Your task to perform on an android device: Search for a new grill on Home Depot Image 0: 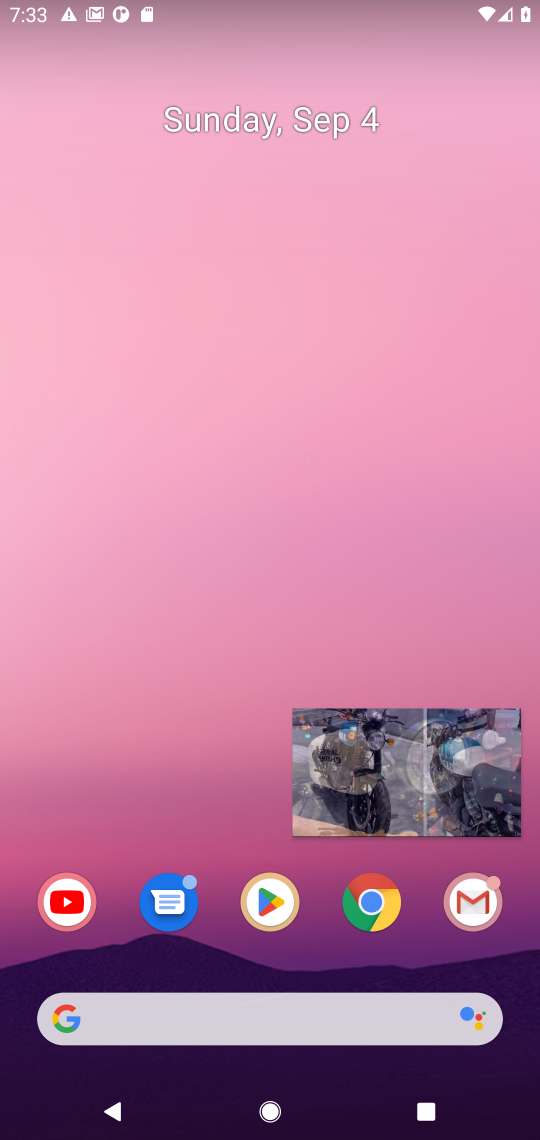
Step 0: click (364, 816)
Your task to perform on an android device: Search for a new grill on Home Depot Image 1: 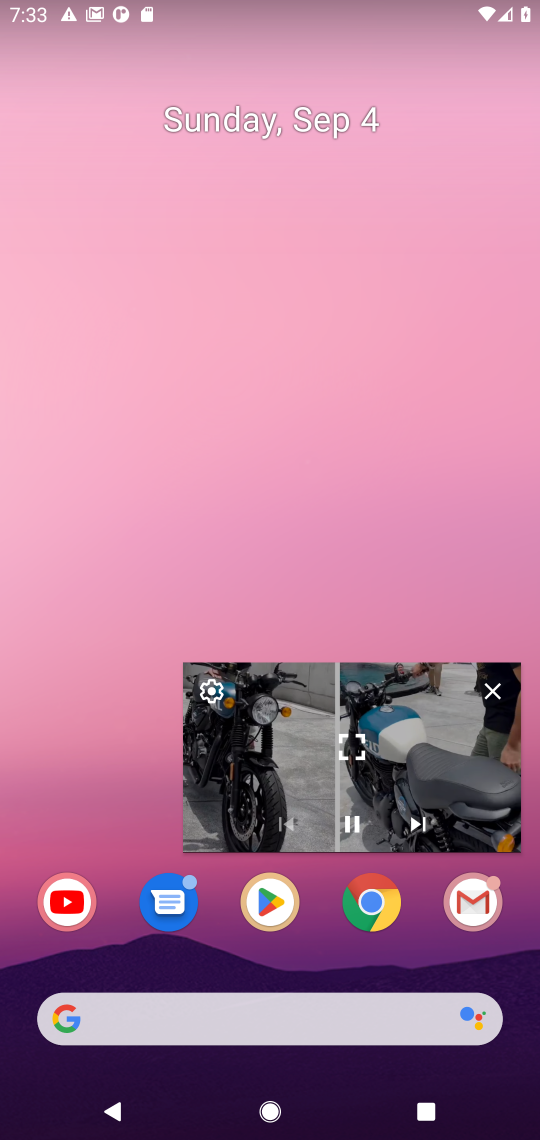
Step 1: click (502, 691)
Your task to perform on an android device: Search for a new grill on Home Depot Image 2: 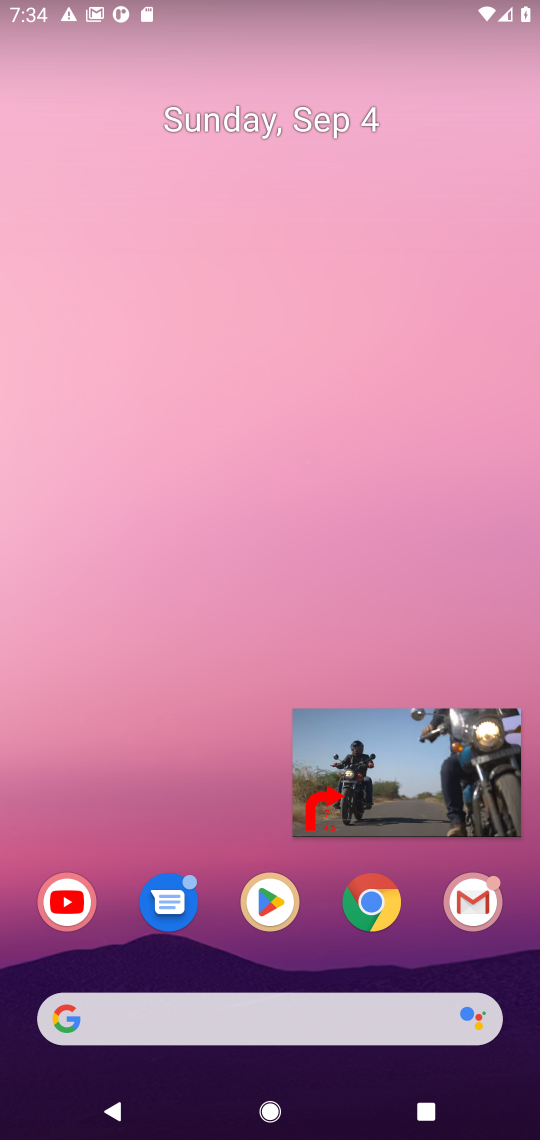
Step 2: click (502, 723)
Your task to perform on an android device: Search for a new grill on Home Depot Image 3: 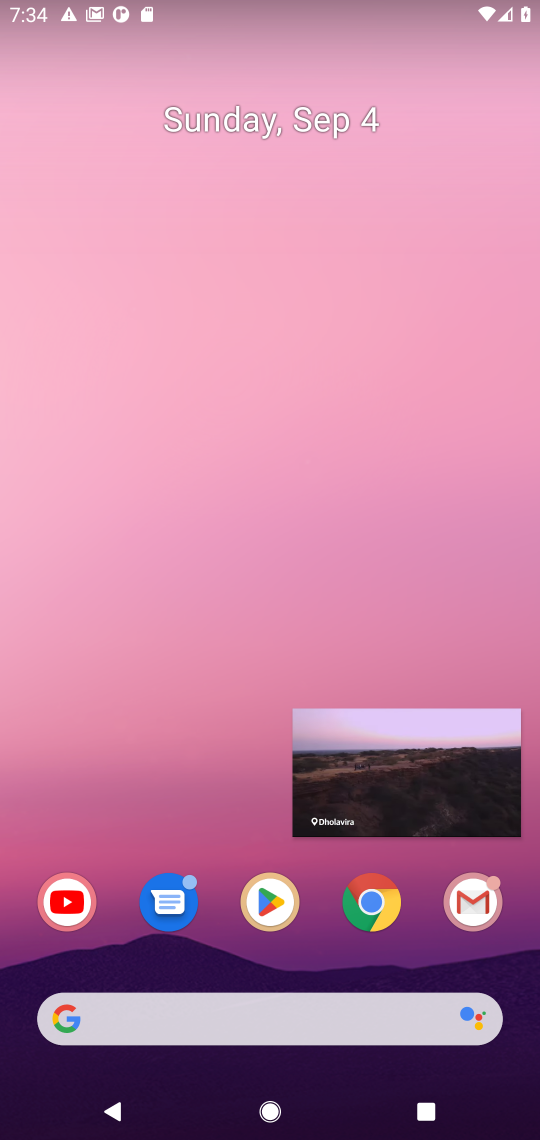
Step 3: click (434, 763)
Your task to perform on an android device: Search for a new grill on Home Depot Image 4: 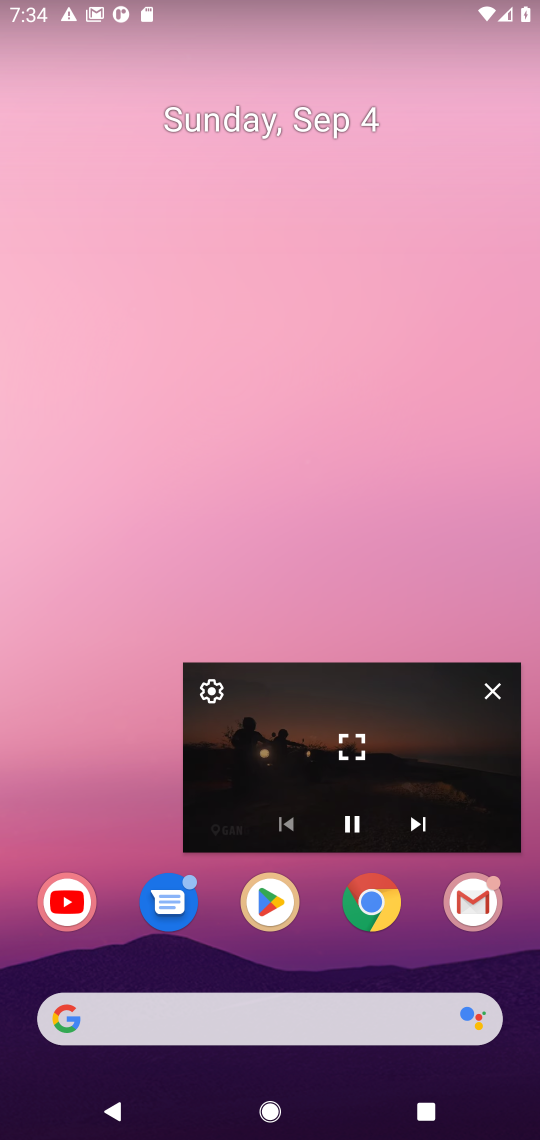
Step 4: click (488, 692)
Your task to perform on an android device: Search for a new grill on Home Depot Image 5: 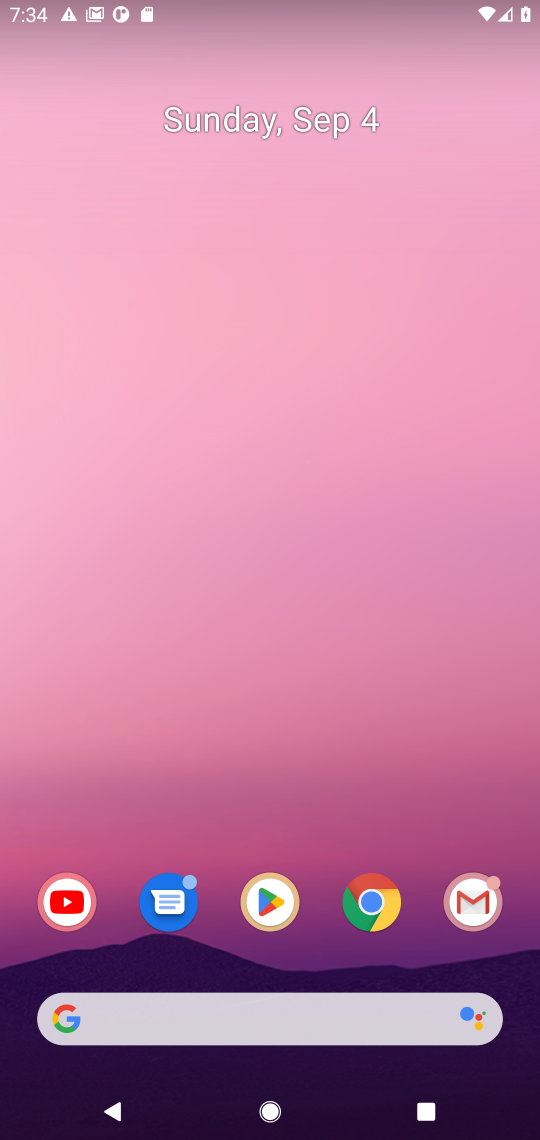
Step 5: task complete